Your task to perform on an android device: star an email in the gmail app Image 0: 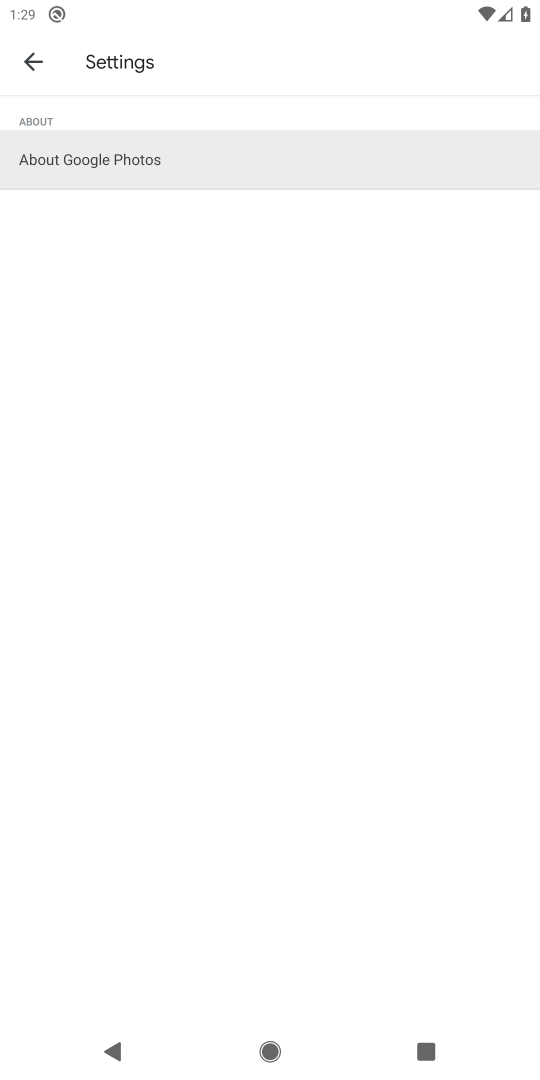
Step 0: press home button
Your task to perform on an android device: star an email in the gmail app Image 1: 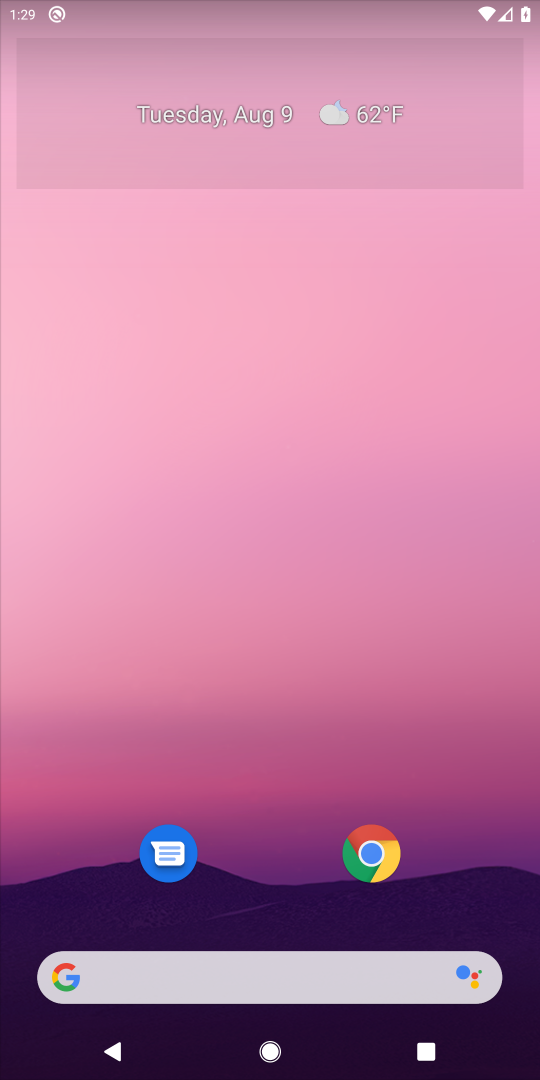
Step 1: drag from (254, 849) to (299, 76)
Your task to perform on an android device: star an email in the gmail app Image 2: 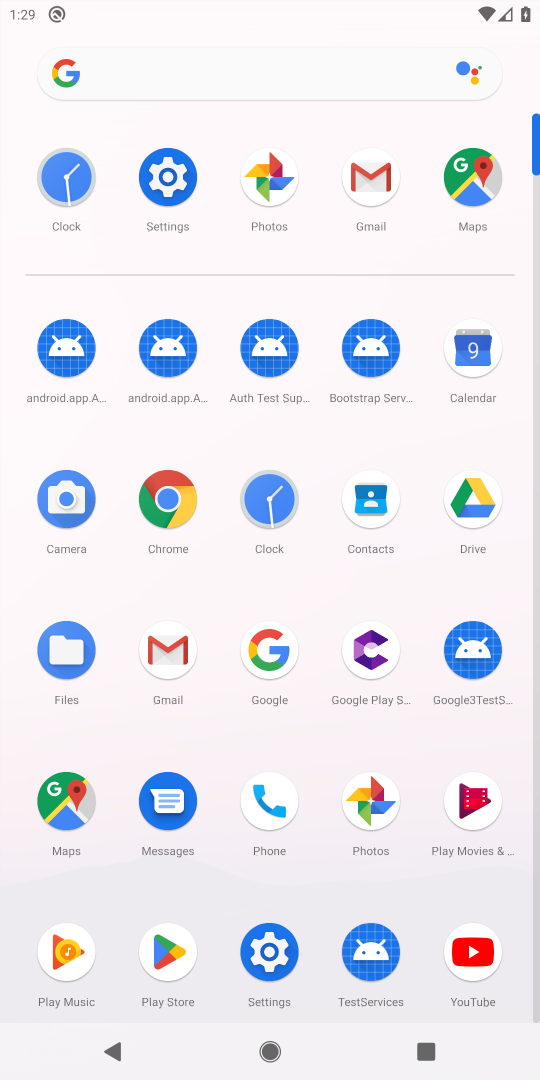
Step 2: click (164, 650)
Your task to perform on an android device: star an email in the gmail app Image 3: 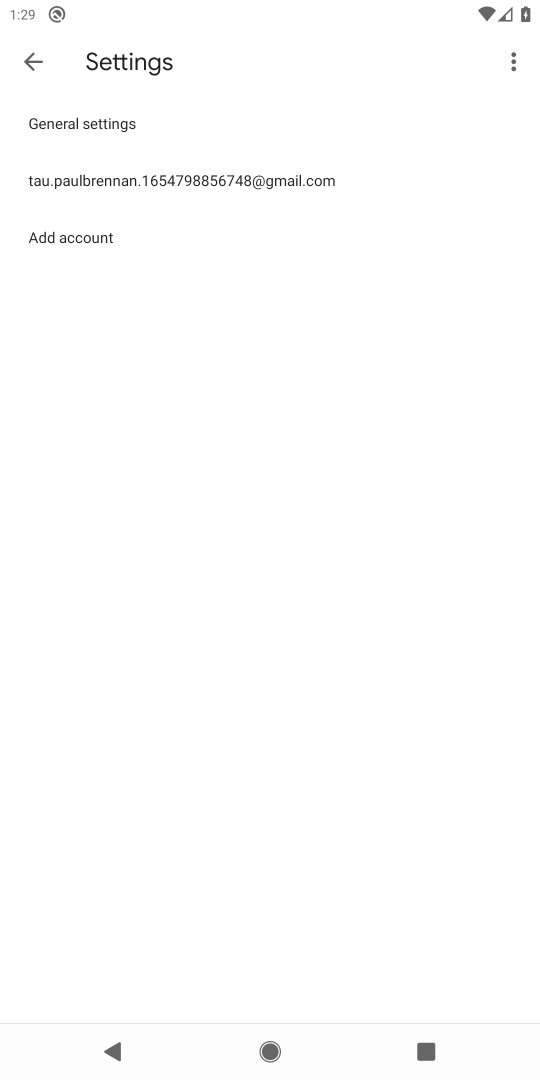
Step 3: task complete